Your task to perform on an android device: find snoozed emails in the gmail app Image 0: 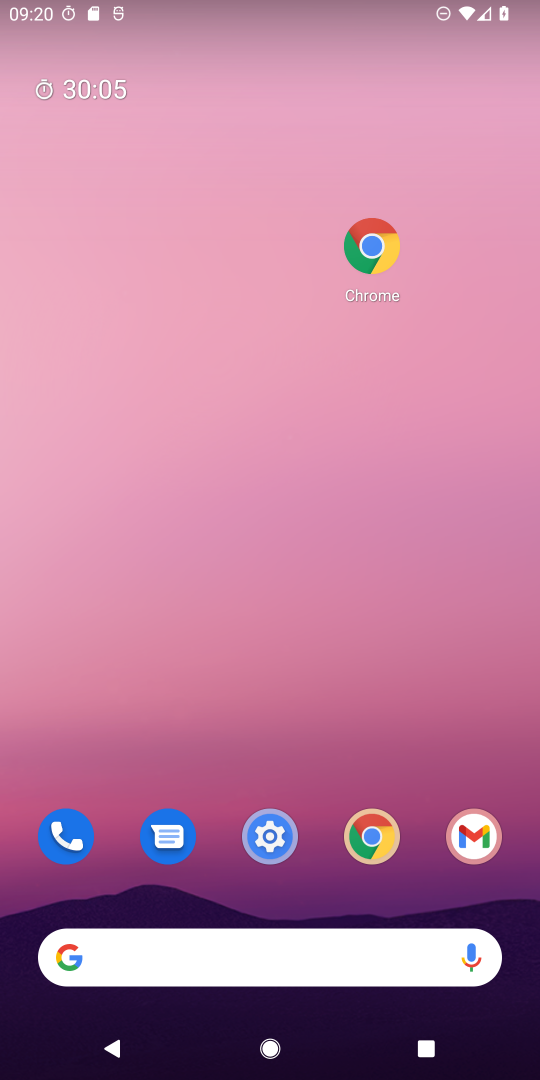
Step 0: drag from (117, 865) to (200, 381)
Your task to perform on an android device: find snoozed emails in the gmail app Image 1: 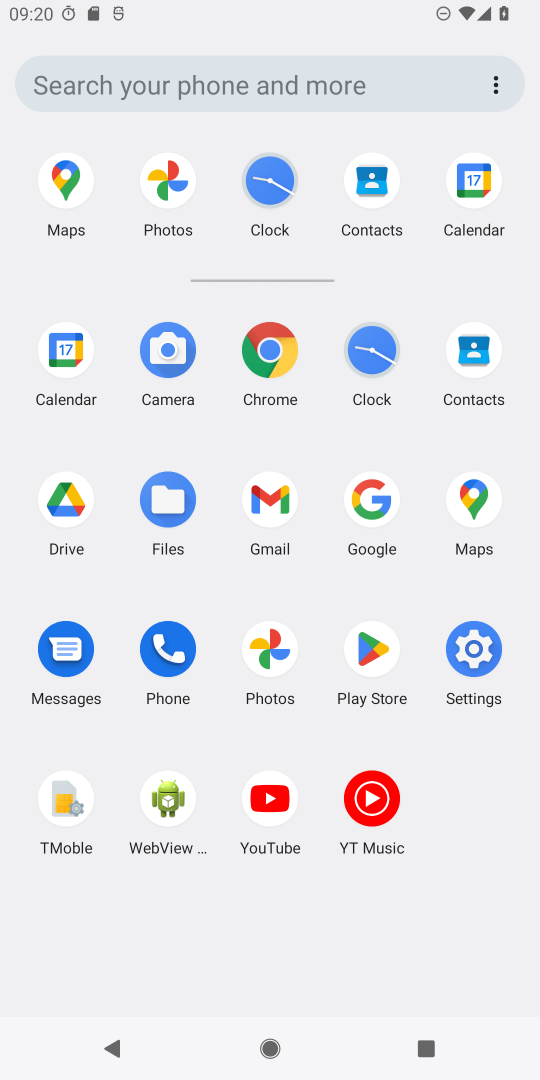
Step 1: click (272, 504)
Your task to perform on an android device: find snoozed emails in the gmail app Image 2: 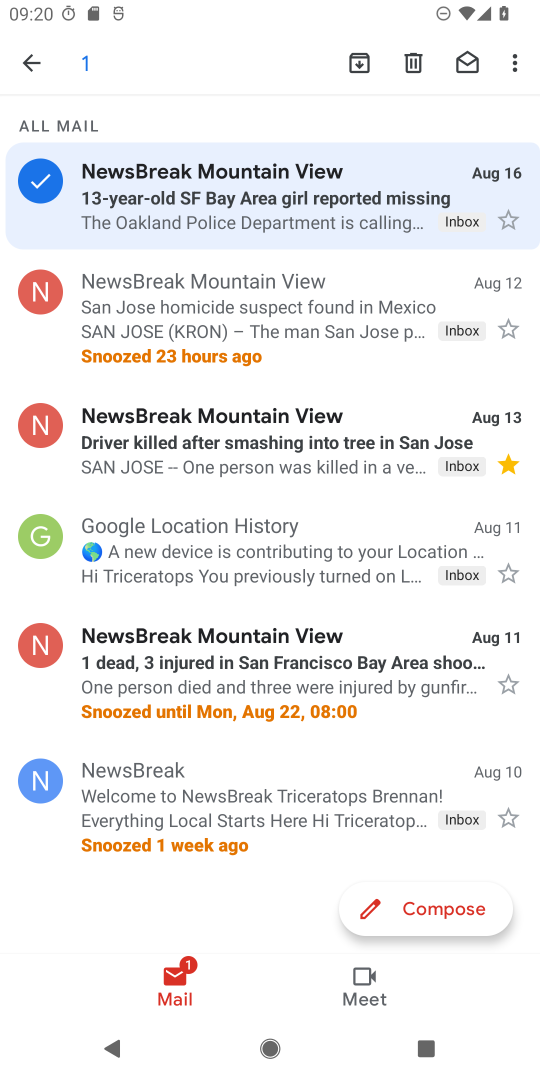
Step 2: click (57, 56)
Your task to perform on an android device: find snoozed emails in the gmail app Image 3: 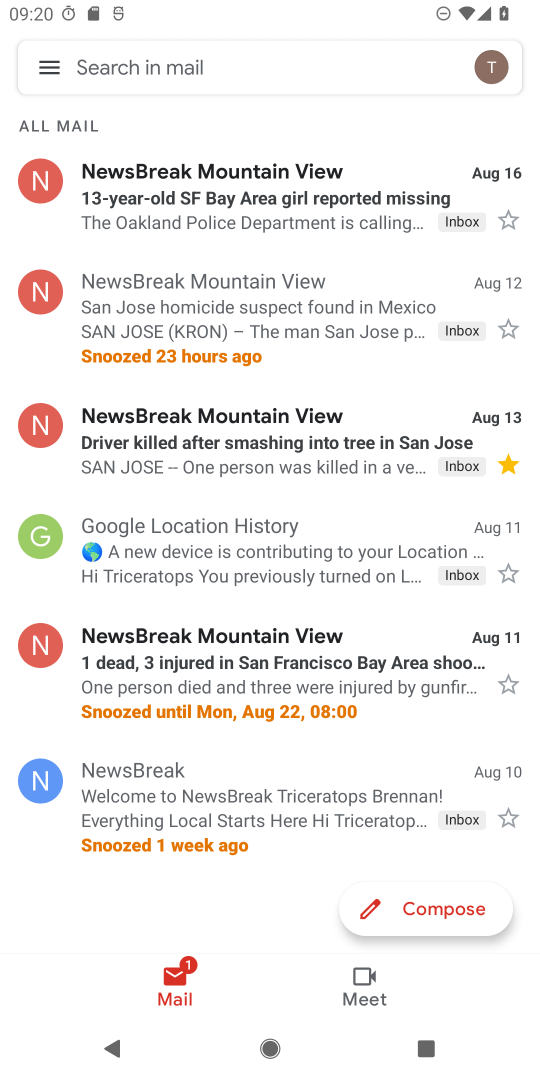
Step 3: click (51, 66)
Your task to perform on an android device: find snoozed emails in the gmail app Image 4: 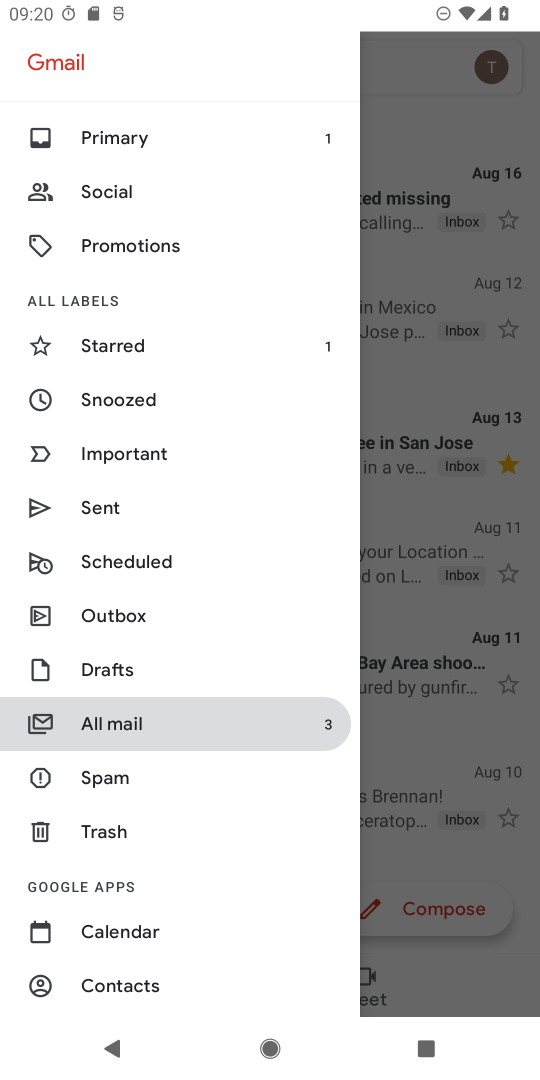
Step 4: click (134, 406)
Your task to perform on an android device: find snoozed emails in the gmail app Image 5: 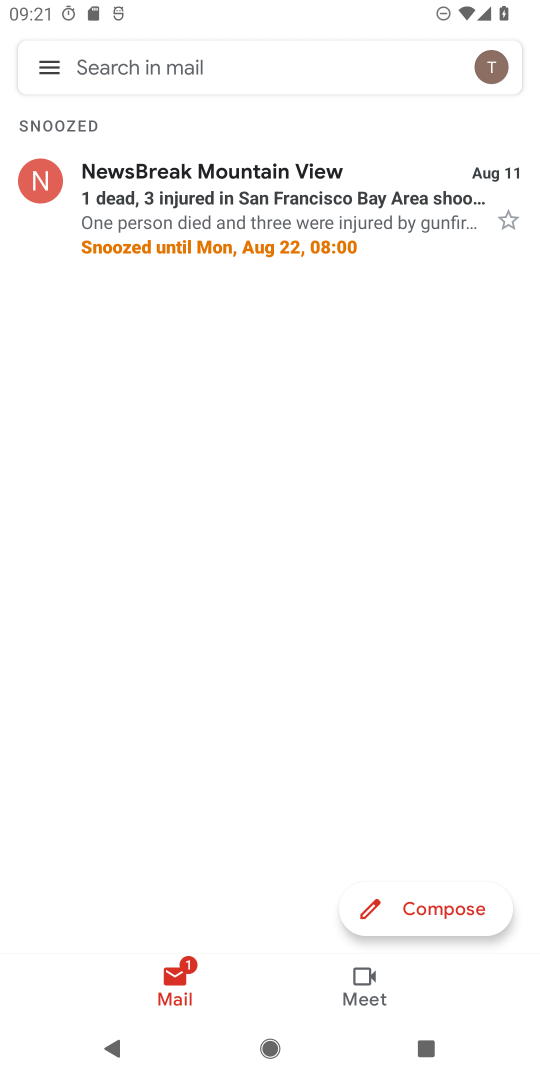
Step 5: task complete